Your task to perform on an android device: toggle data saver in the chrome app Image 0: 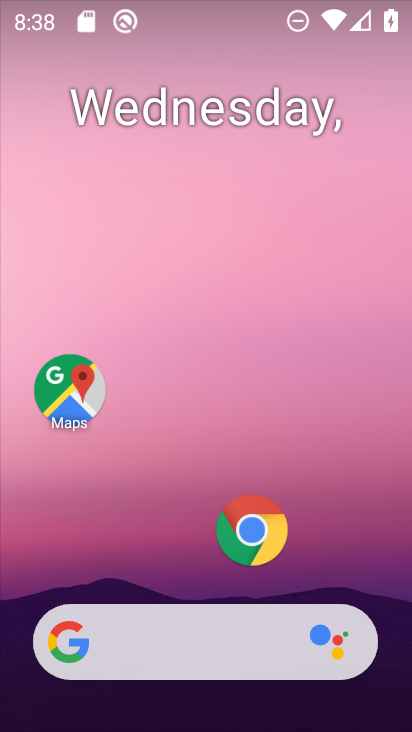
Step 0: click (259, 539)
Your task to perform on an android device: toggle data saver in the chrome app Image 1: 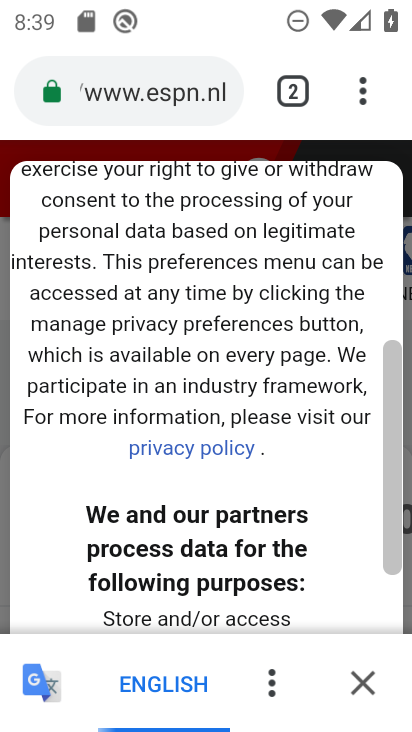
Step 1: drag from (359, 89) to (144, 559)
Your task to perform on an android device: toggle data saver in the chrome app Image 2: 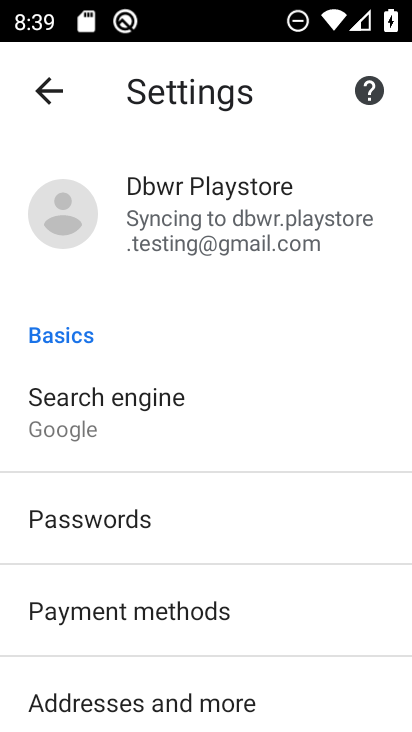
Step 2: drag from (164, 621) to (254, 95)
Your task to perform on an android device: toggle data saver in the chrome app Image 3: 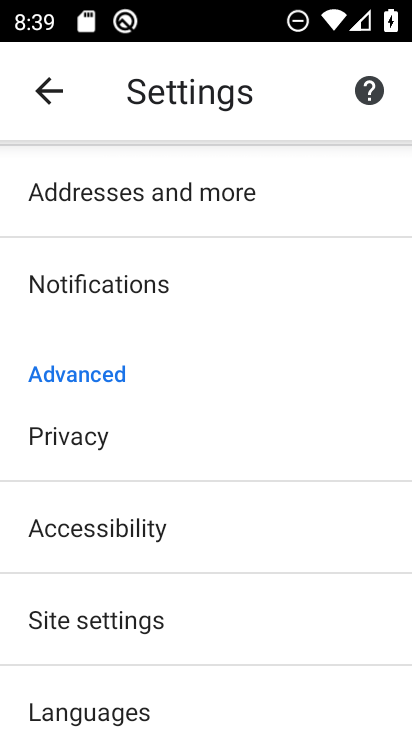
Step 3: drag from (142, 678) to (216, 251)
Your task to perform on an android device: toggle data saver in the chrome app Image 4: 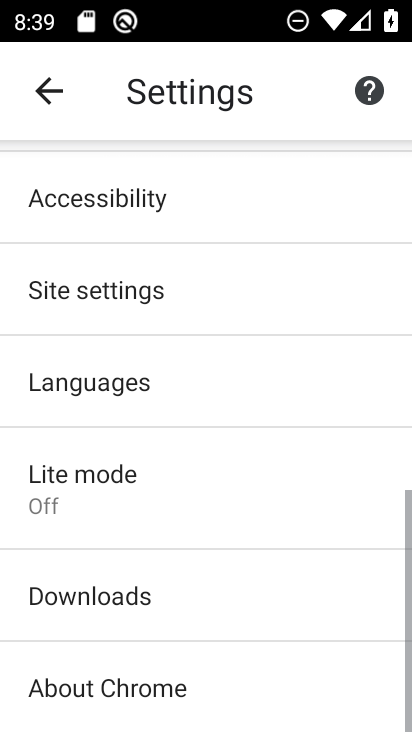
Step 4: click (89, 503)
Your task to perform on an android device: toggle data saver in the chrome app Image 5: 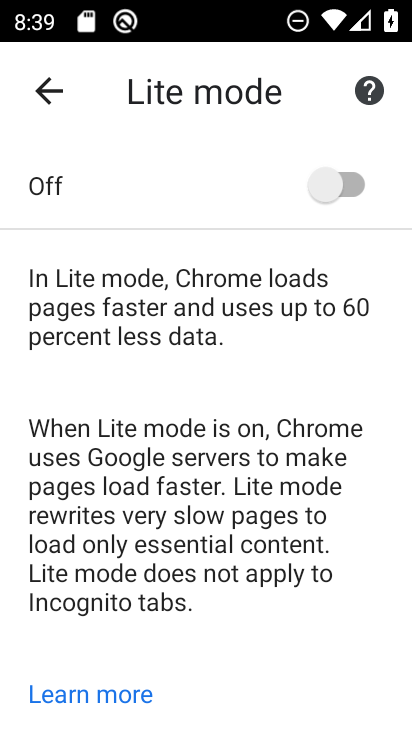
Step 5: click (331, 177)
Your task to perform on an android device: toggle data saver in the chrome app Image 6: 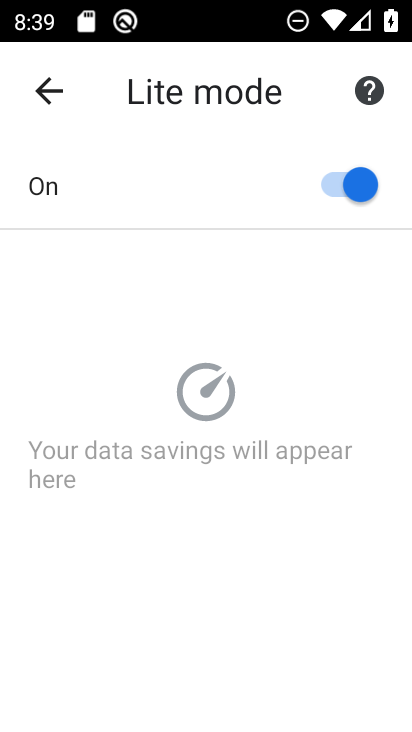
Step 6: task complete